Your task to perform on an android device: Go to battery settings Image 0: 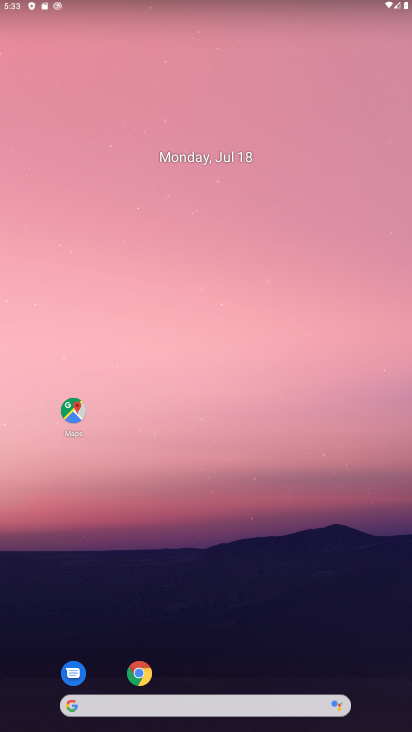
Step 0: drag from (248, 524) to (262, 22)
Your task to perform on an android device: Go to battery settings Image 1: 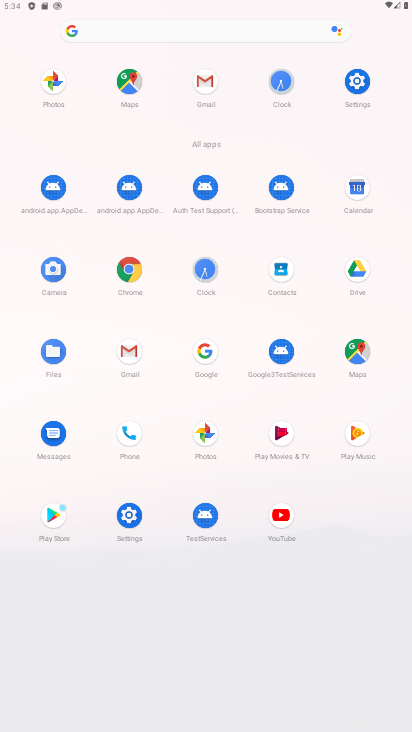
Step 1: click (354, 81)
Your task to perform on an android device: Go to battery settings Image 2: 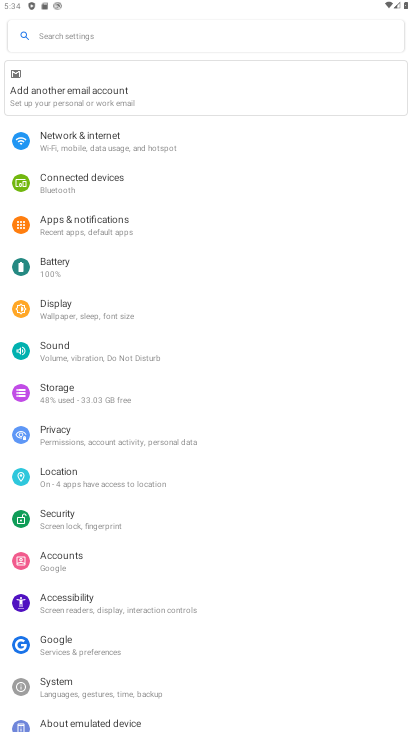
Step 2: click (50, 256)
Your task to perform on an android device: Go to battery settings Image 3: 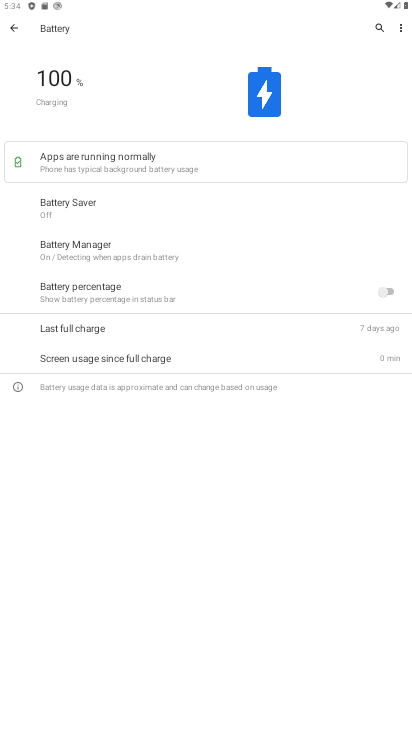
Step 3: task complete